Your task to perform on an android device: See recent photos Image 0: 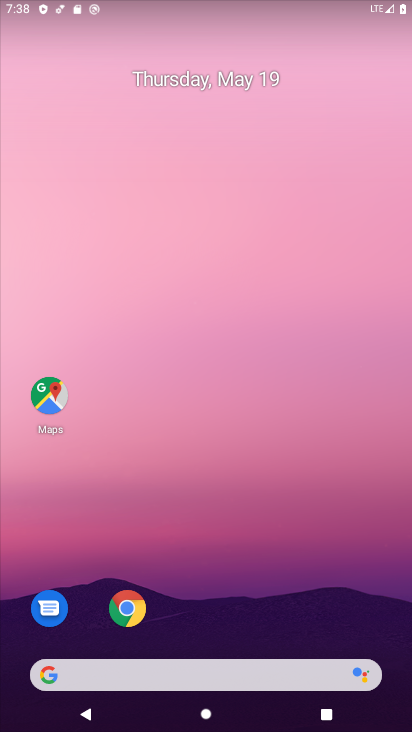
Step 0: drag from (378, 609) to (371, 244)
Your task to perform on an android device: See recent photos Image 1: 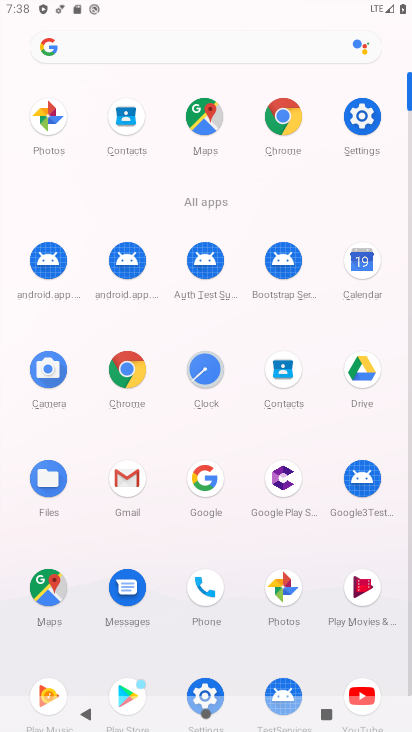
Step 1: click (291, 578)
Your task to perform on an android device: See recent photos Image 2: 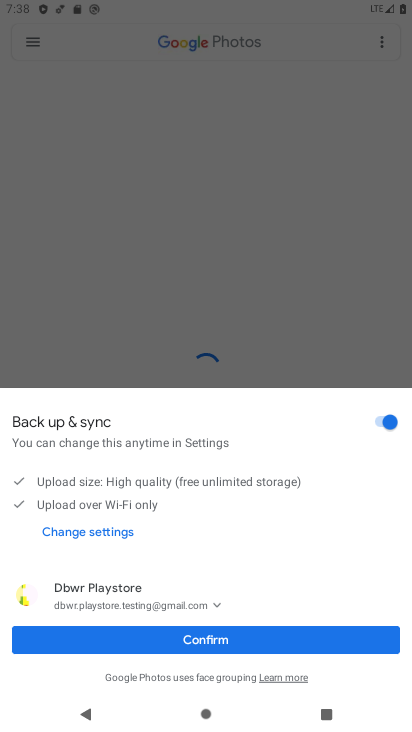
Step 2: click (218, 641)
Your task to perform on an android device: See recent photos Image 3: 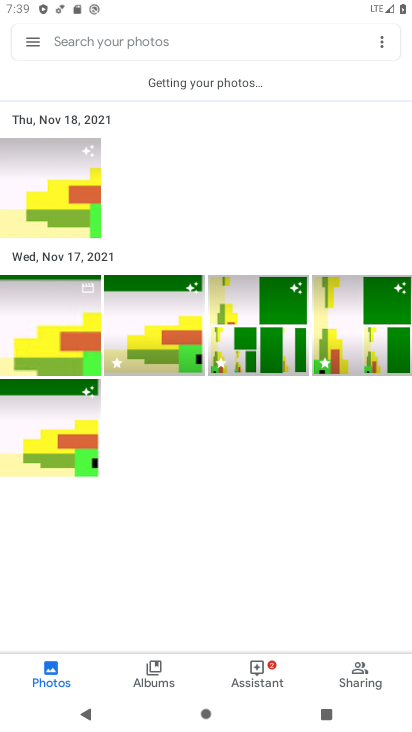
Step 3: click (67, 219)
Your task to perform on an android device: See recent photos Image 4: 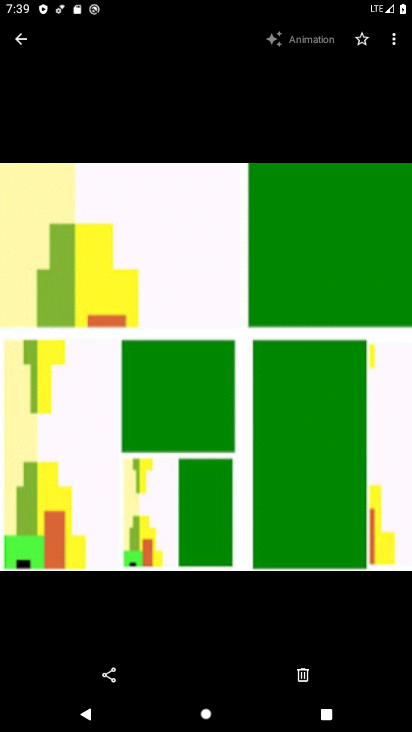
Step 4: click (17, 38)
Your task to perform on an android device: See recent photos Image 5: 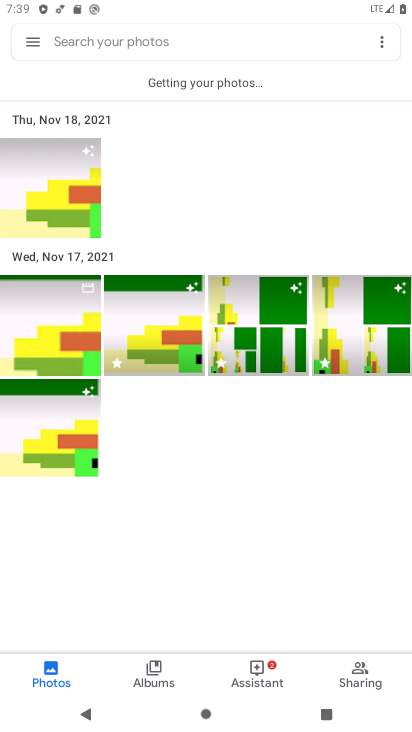
Step 5: task complete